Your task to perform on an android device: When is my next meeting? Image 0: 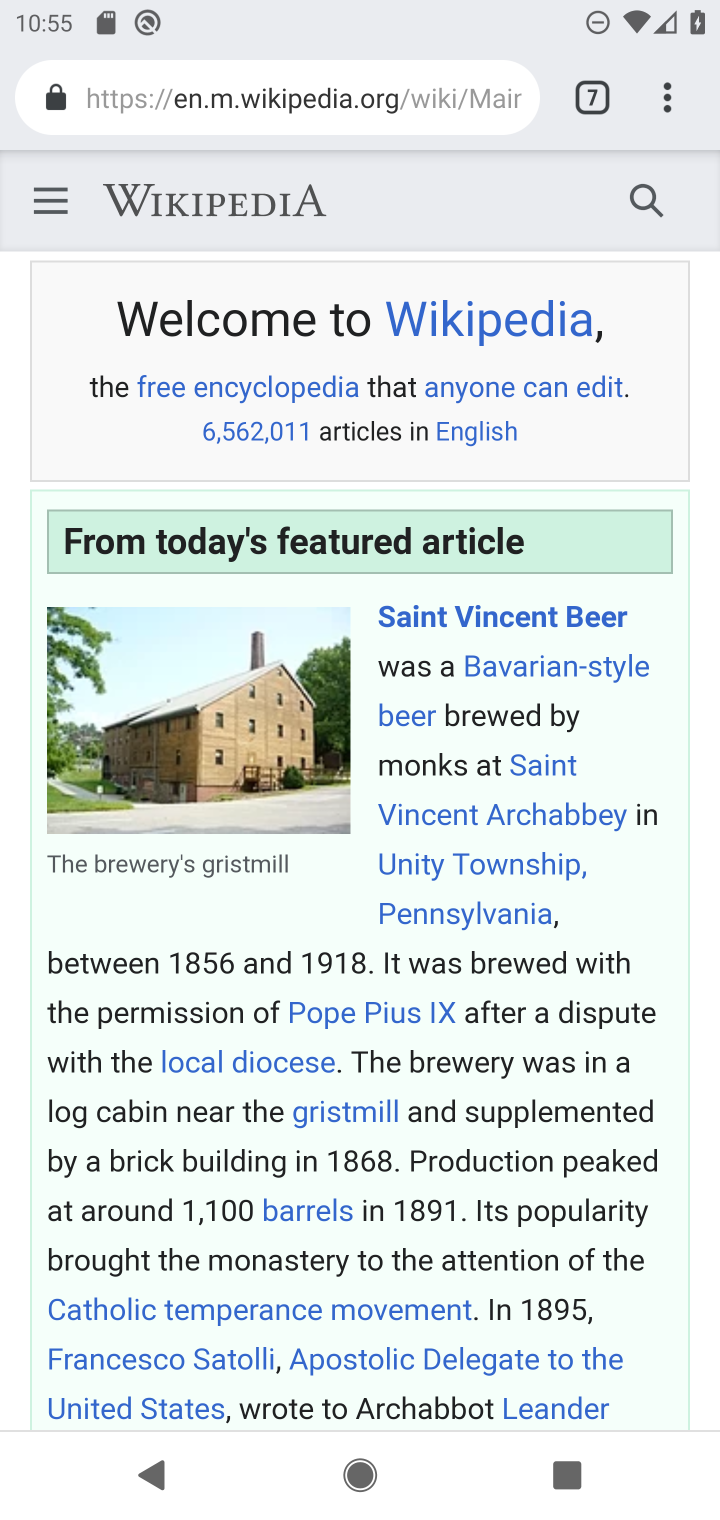
Step 0: press home button
Your task to perform on an android device: When is my next meeting? Image 1: 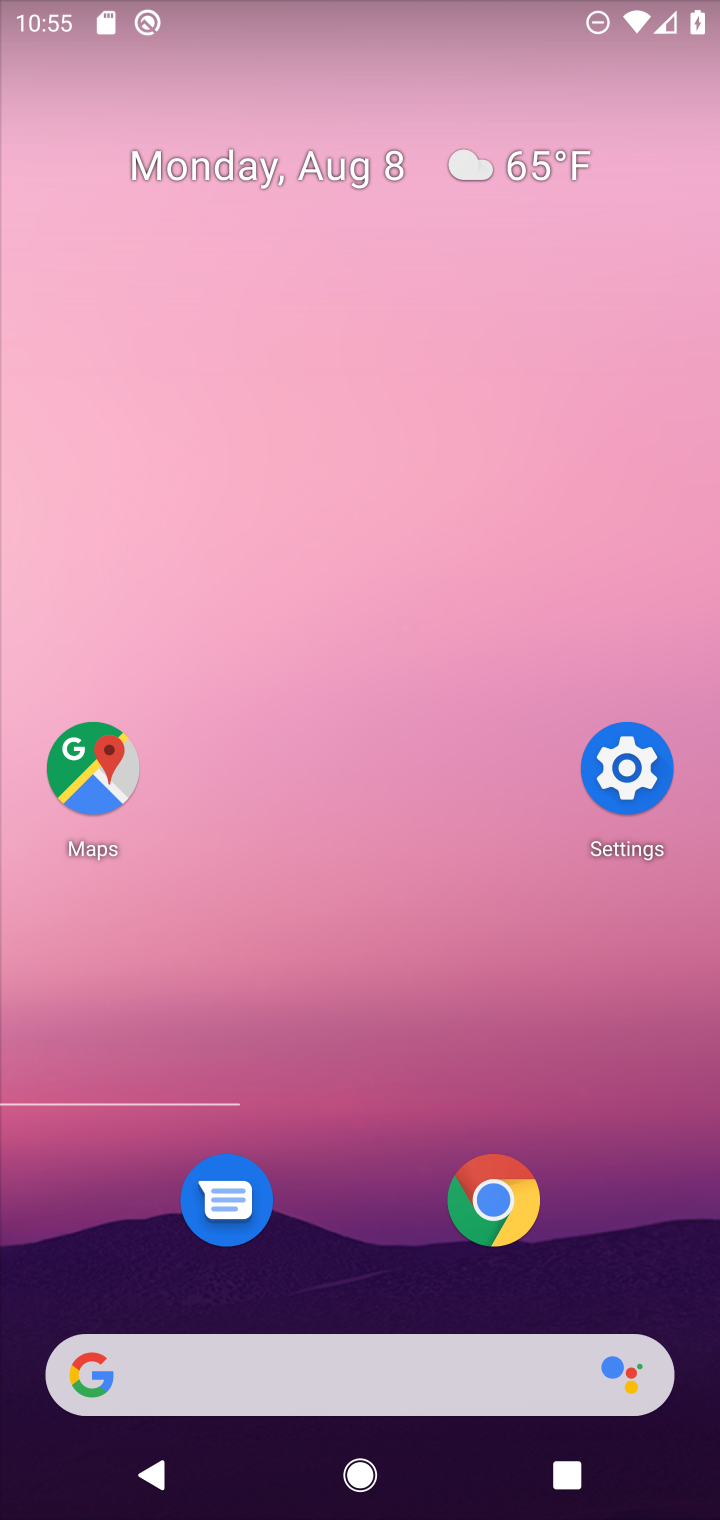
Step 1: drag from (392, 810) to (414, 112)
Your task to perform on an android device: When is my next meeting? Image 2: 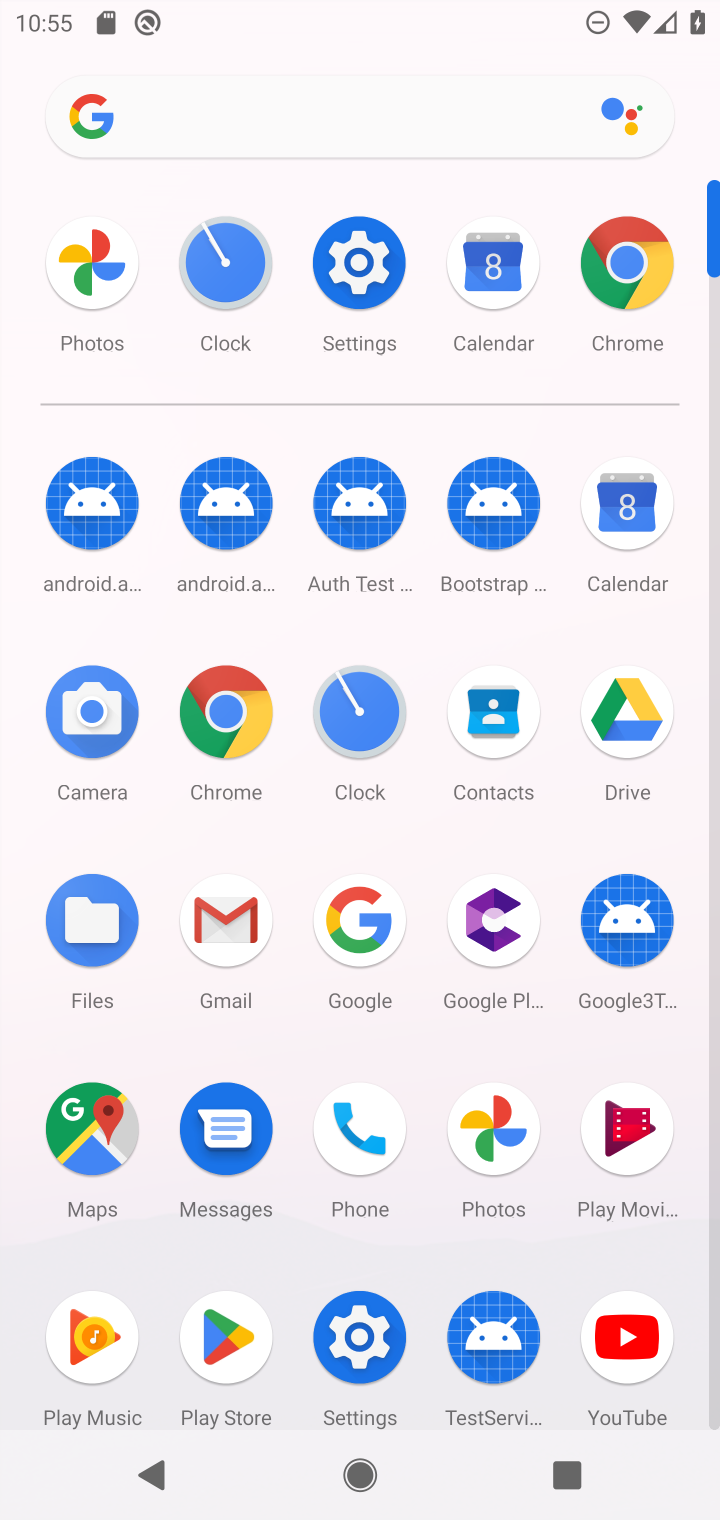
Step 2: click (624, 510)
Your task to perform on an android device: When is my next meeting? Image 3: 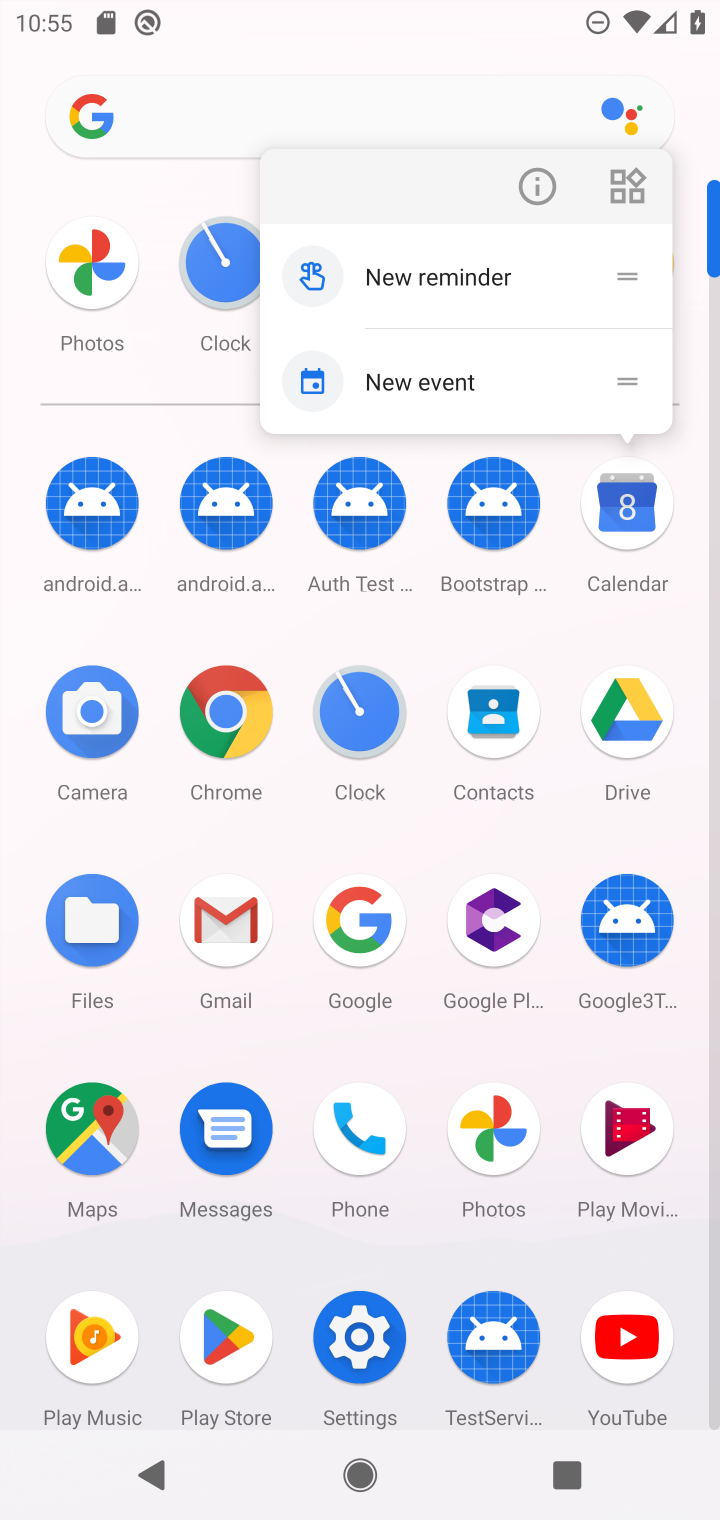
Step 3: click (626, 510)
Your task to perform on an android device: When is my next meeting? Image 4: 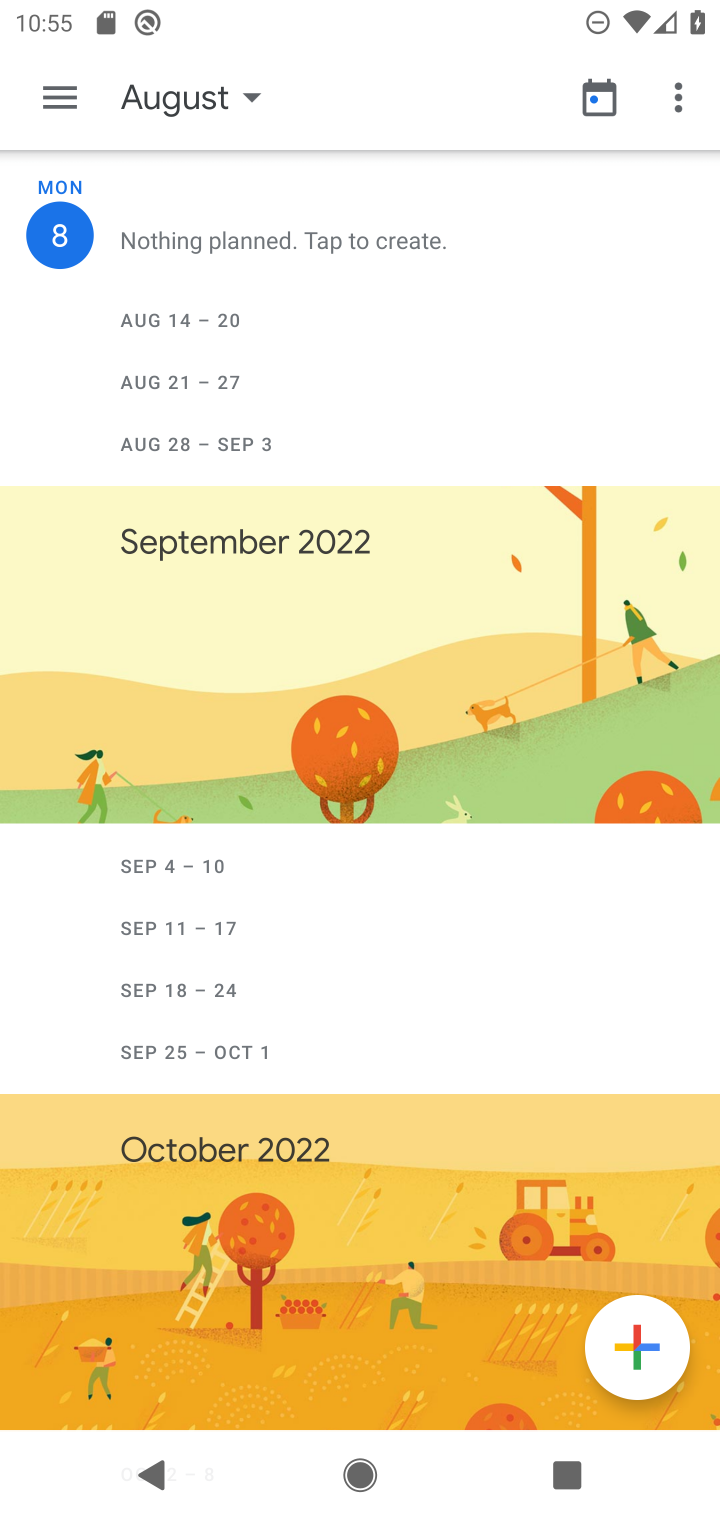
Step 4: task complete